Your task to perform on an android device: Check the weather Image 0: 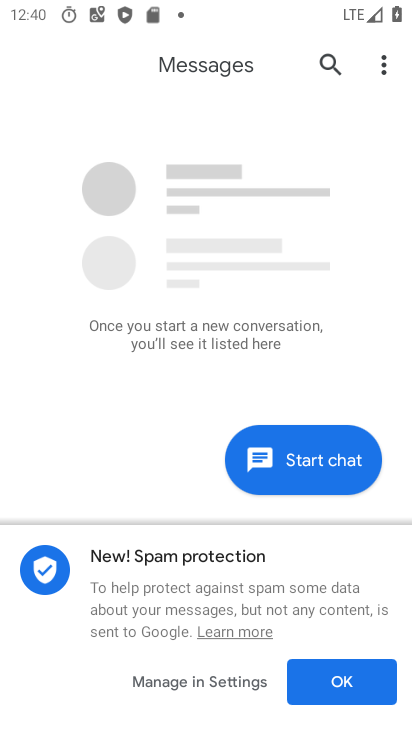
Step 0: press home button
Your task to perform on an android device: Check the weather Image 1: 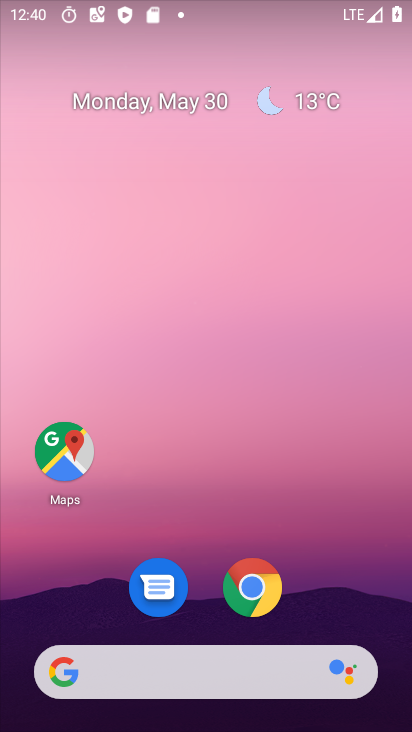
Step 1: click (328, 92)
Your task to perform on an android device: Check the weather Image 2: 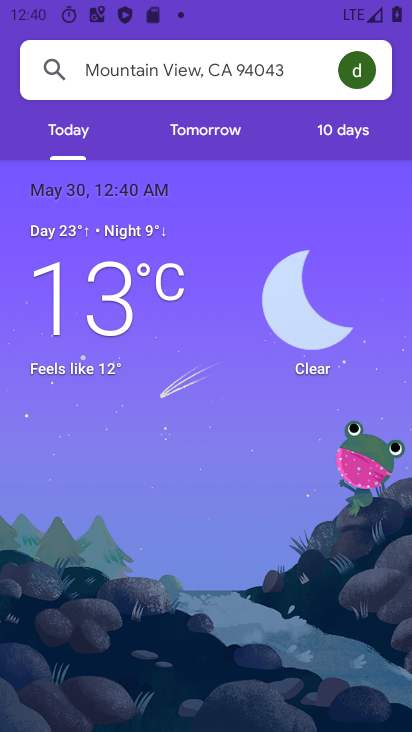
Step 2: task complete